Your task to perform on an android device: Open the phone app and click the voicemail tab. Image 0: 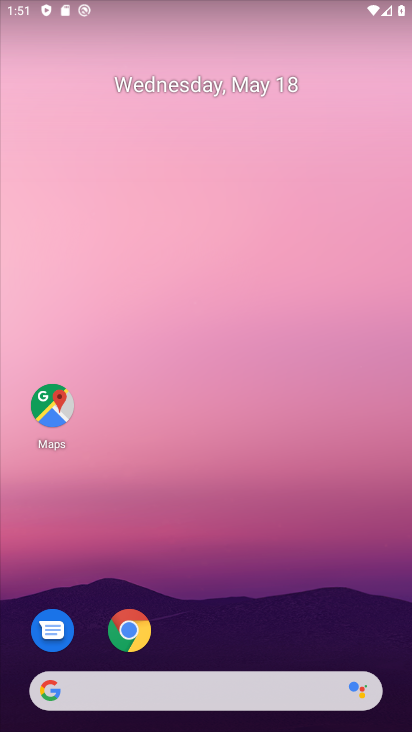
Step 0: drag from (205, 637) to (184, 245)
Your task to perform on an android device: Open the phone app and click the voicemail tab. Image 1: 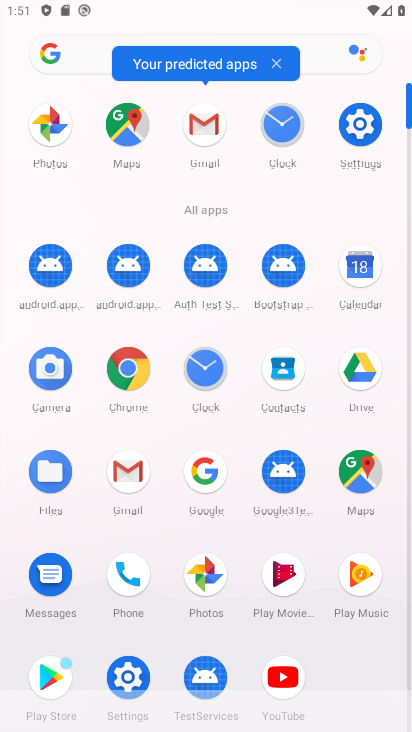
Step 1: click (109, 584)
Your task to perform on an android device: Open the phone app and click the voicemail tab. Image 2: 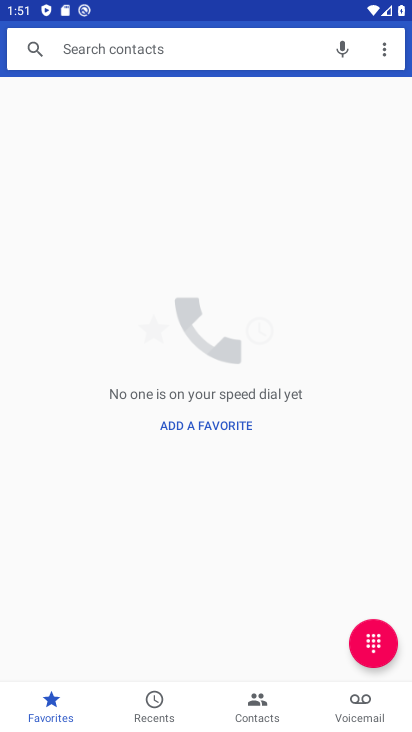
Step 2: click (353, 704)
Your task to perform on an android device: Open the phone app and click the voicemail tab. Image 3: 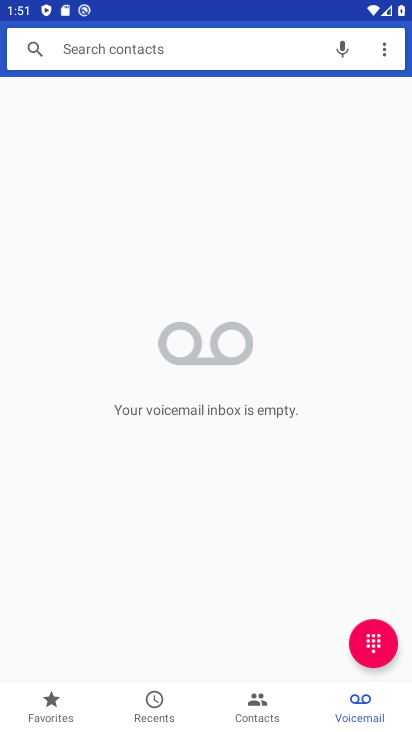
Step 3: task complete